Your task to perform on an android device: change keyboard looks Image 0: 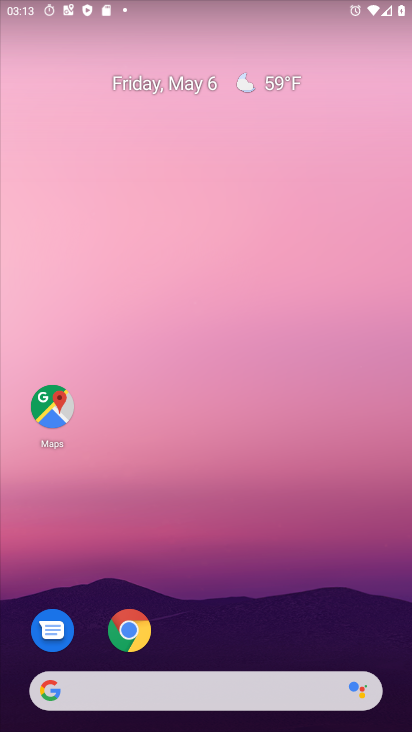
Step 0: drag from (219, 626) to (249, 226)
Your task to perform on an android device: change keyboard looks Image 1: 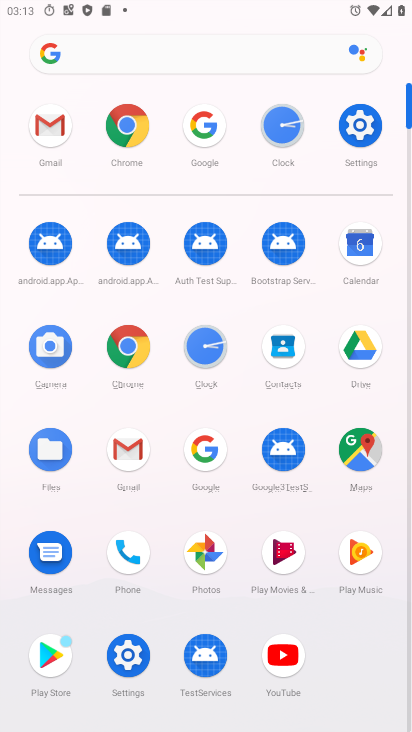
Step 1: click (340, 123)
Your task to perform on an android device: change keyboard looks Image 2: 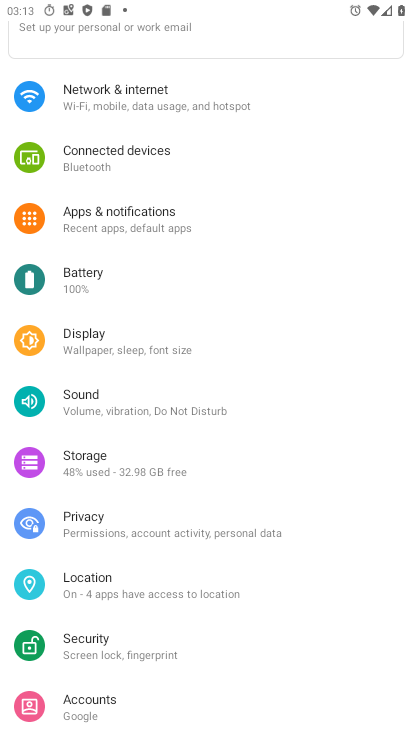
Step 2: drag from (112, 641) to (161, 225)
Your task to perform on an android device: change keyboard looks Image 3: 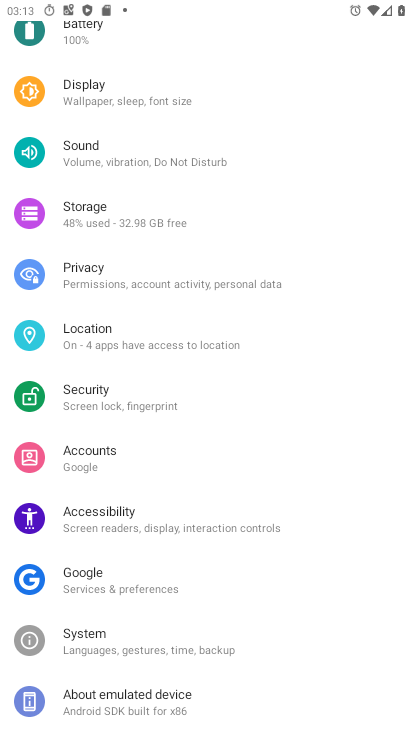
Step 3: click (94, 638)
Your task to perform on an android device: change keyboard looks Image 4: 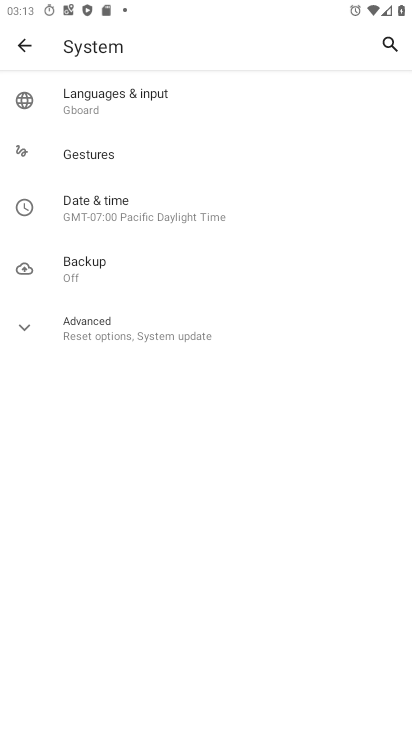
Step 4: click (132, 103)
Your task to perform on an android device: change keyboard looks Image 5: 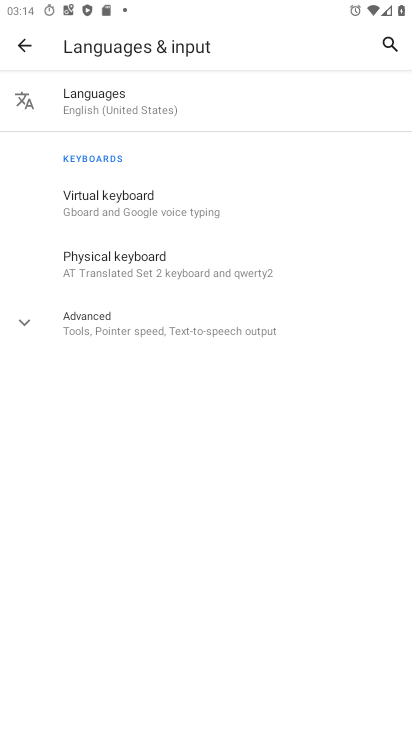
Step 5: click (143, 199)
Your task to perform on an android device: change keyboard looks Image 6: 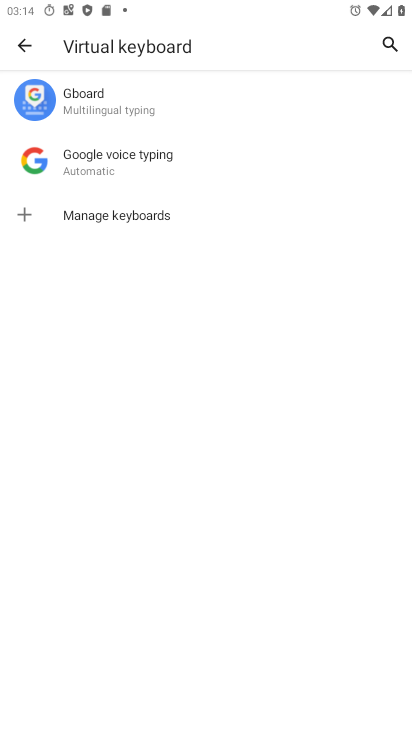
Step 6: click (137, 115)
Your task to perform on an android device: change keyboard looks Image 7: 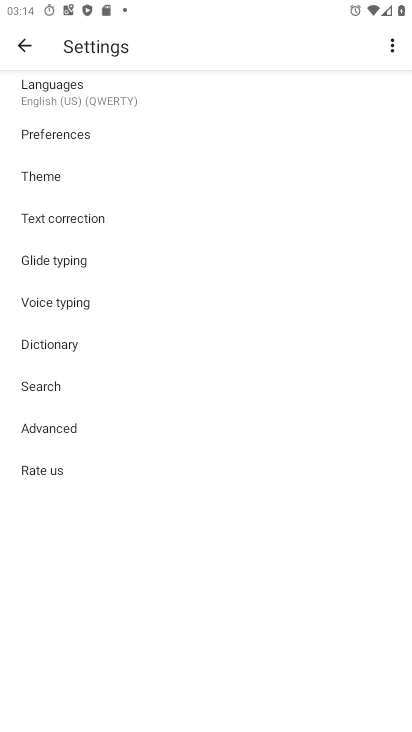
Step 7: click (61, 176)
Your task to perform on an android device: change keyboard looks Image 8: 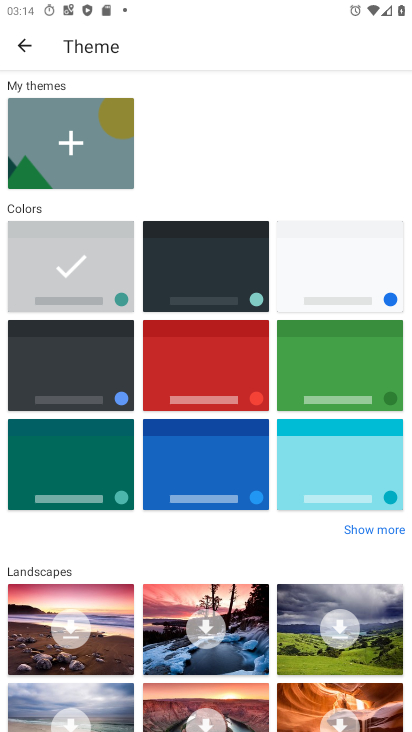
Step 8: click (322, 277)
Your task to perform on an android device: change keyboard looks Image 9: 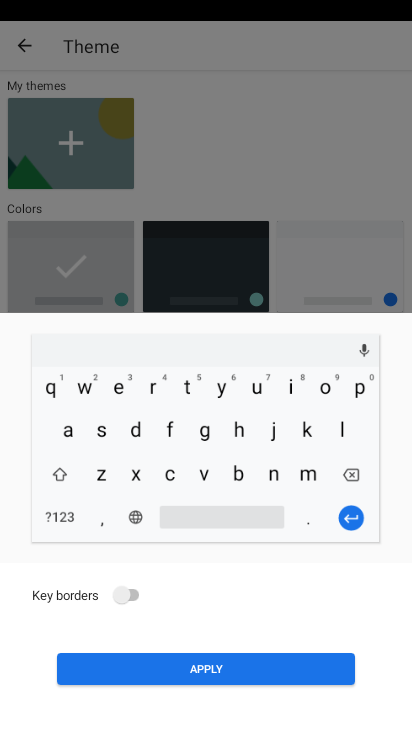
Step 9: click (161, 658)
Your task to perform on an android device: change keyboard looks Image 10: 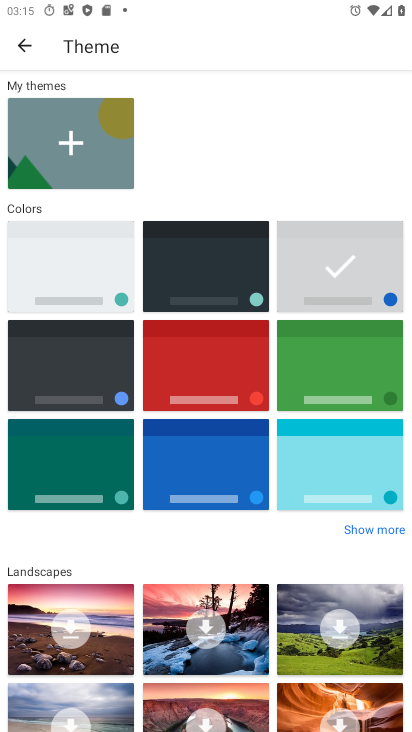
Step 10: task complete